Your task to perform on an android device: Open settings on Google Maps Image 0: 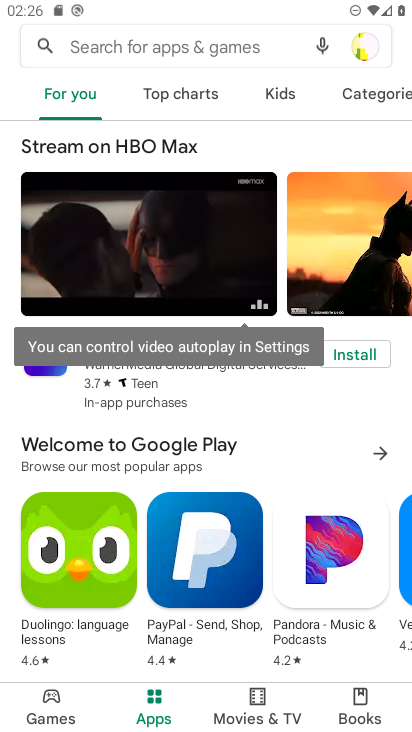
Step 0: press home button
Your task to perform on an android device: Open settings on Google Maps Image 1: 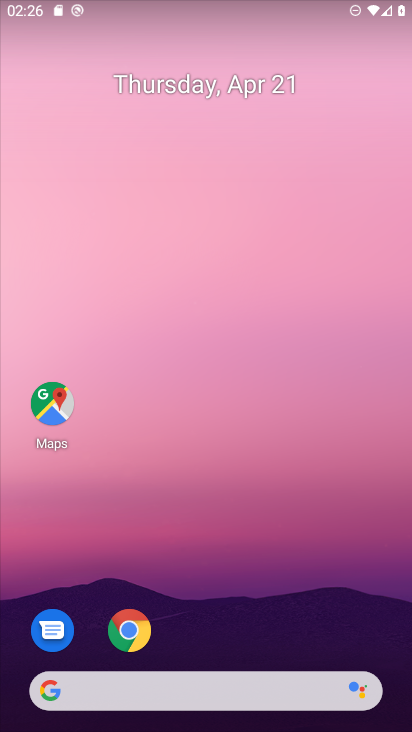
Step 1: drag from (271, 622) to (219, 299)
Your task to perform on an android device: Open settings on Google Maps Image 2: 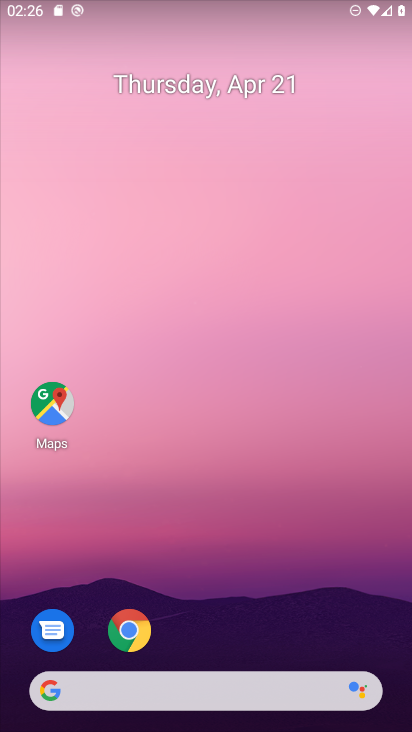
Step 2: click (62, 420)
Your task to perform on an android device: Open settings on Google Maps Image 3: 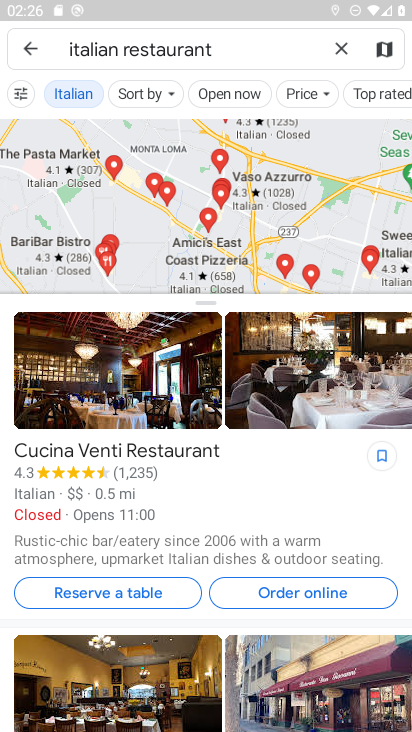
Step 3: task complete